Your task to perform on an android device: What's on my calendar tomorrow? Image 0: 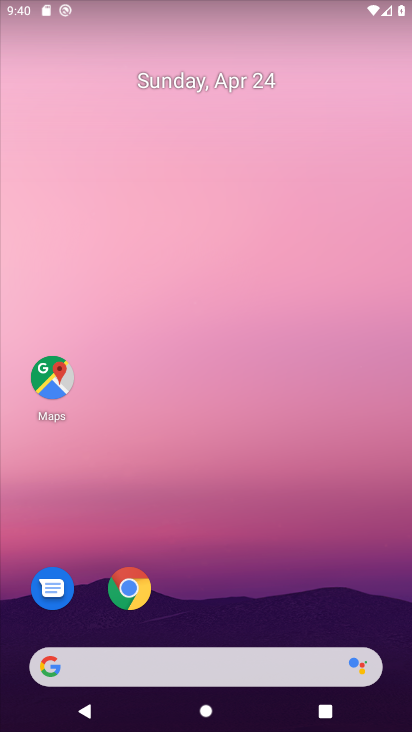
Step 0: drag from (241, 476) to (226, 72)
Your task to perform on an android device: What's on my calendar tomorrow? Image 1: 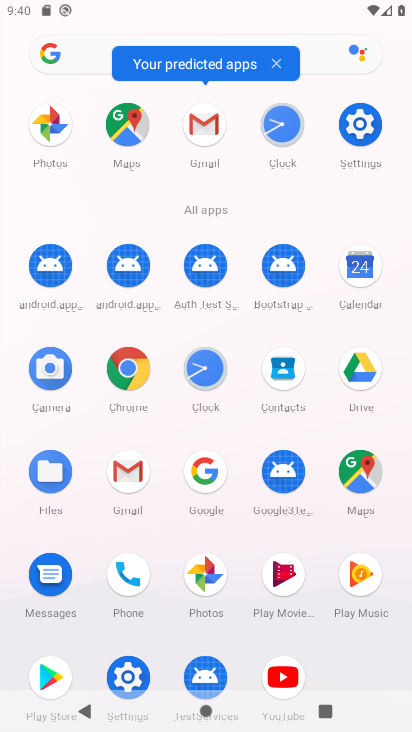
Step 1: click (362, 261)
Your task to perform on an android device: What's on my calendar tomorrow? Image 2: 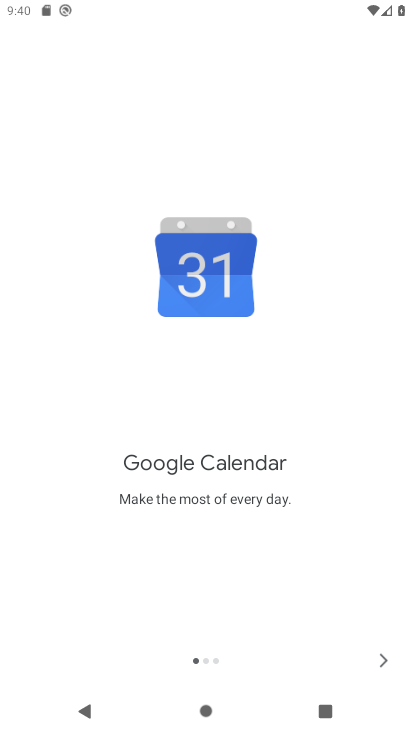
Step 2: click (384, 660)
Your task to perform on an android device: What's on my calendar tomorrow? Image 3: 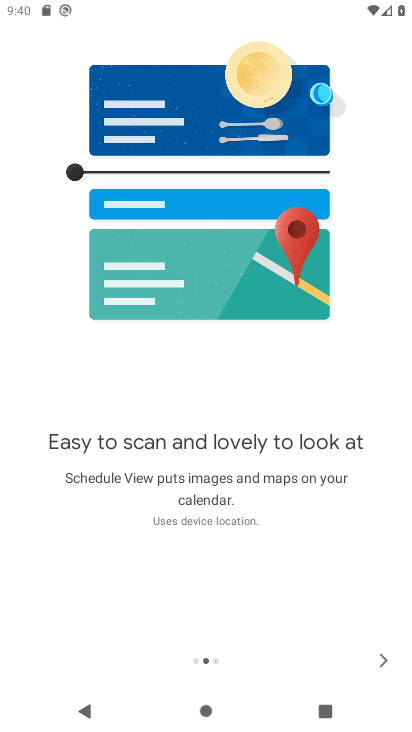
Step 3: click (384, 660)
Your task to perform on an android device: What's on my calendar tomorrow? Image 4: 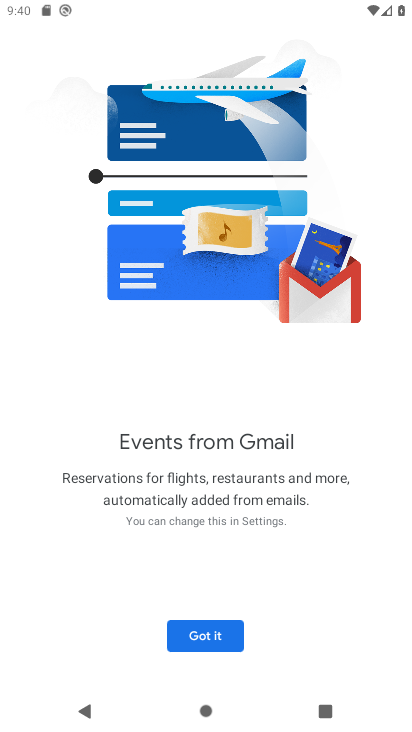
Step 4: click (200, 638)
Your task to perform on an android device: What's on my calendar tomorrow? Image 5: 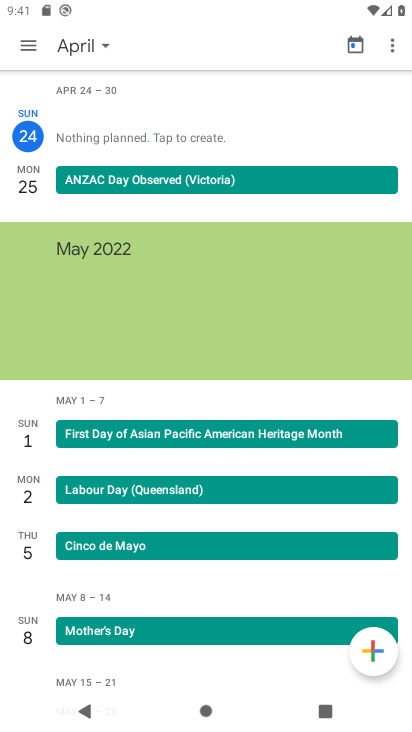
Step 5: click (29, 52)
Your task to perform on an android device: What's on my calendar tomorrow? Image 6: 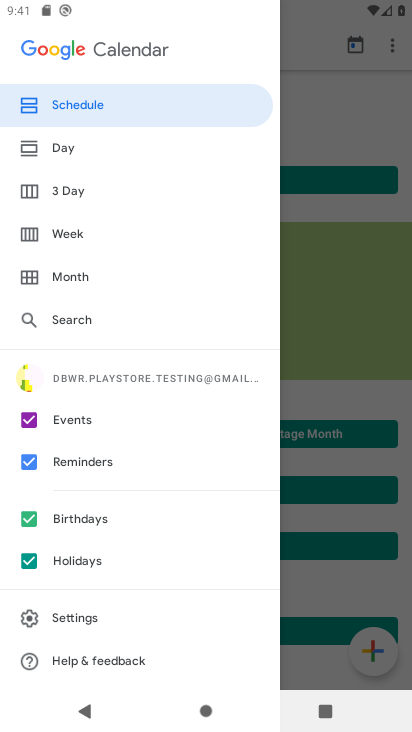
Step 6: click (80, 144)
Your task to perform on an android device: What's on my calendar tomorrow? Image 7: 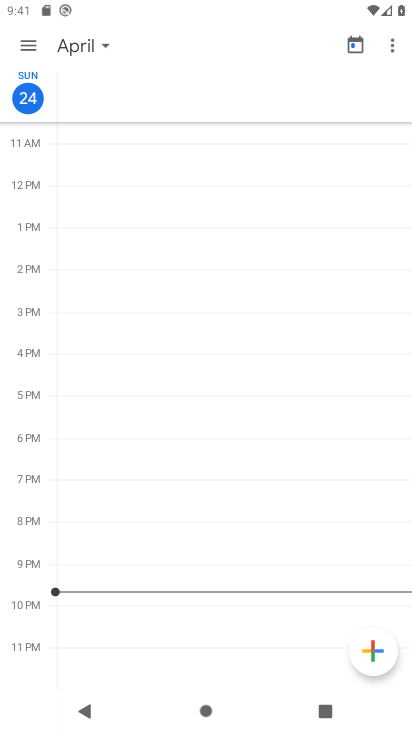
Step 7: click (91, 55)
Your task to perform on an android device: What's on my calendar tomorrow? Image 8: 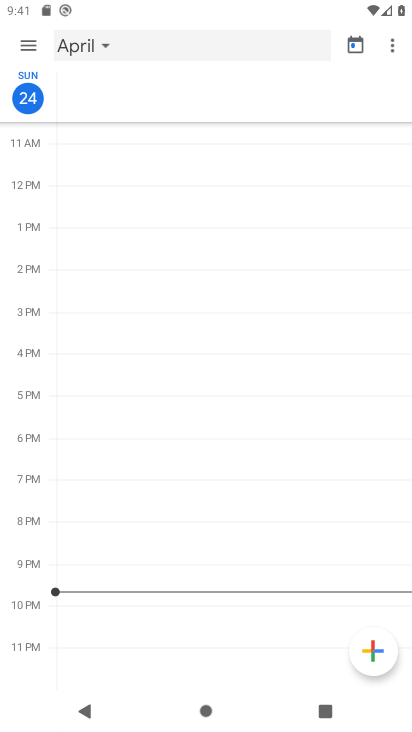
Step 8: click (97, 42)
Your task to perform on an android device: What's on my calendar tomorrow? Image 9: 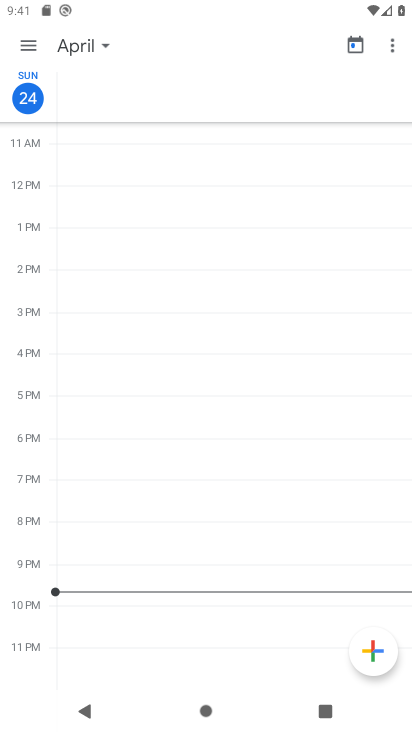
Step 9: click (78, 48)
Your task to perform on an android device: What's on my calendar tomorrow? Image 10: 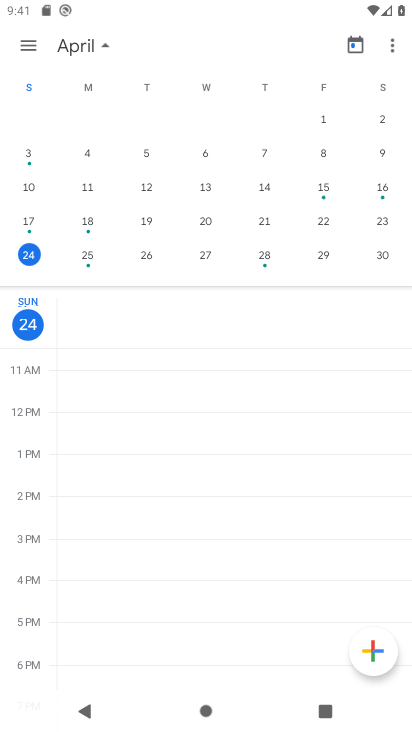
Step 10: click (145, 259)
Your task to perform on an android device: What's on my calendar tomorrow? Image 11: 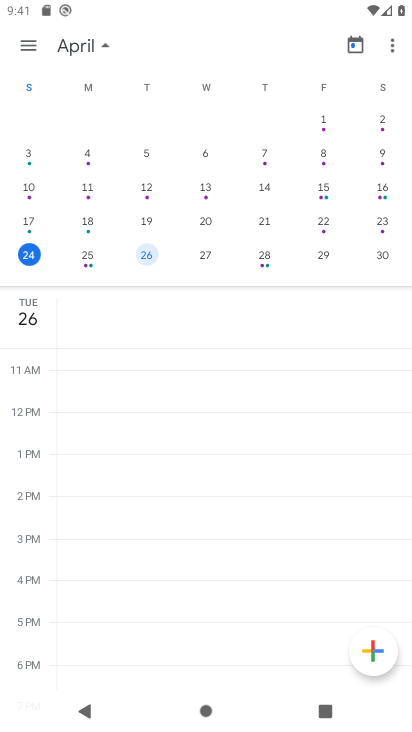
Step 11: click (145, 259)
Your task to perform on an android device: What's on my calendar tomorrow? Image 12: 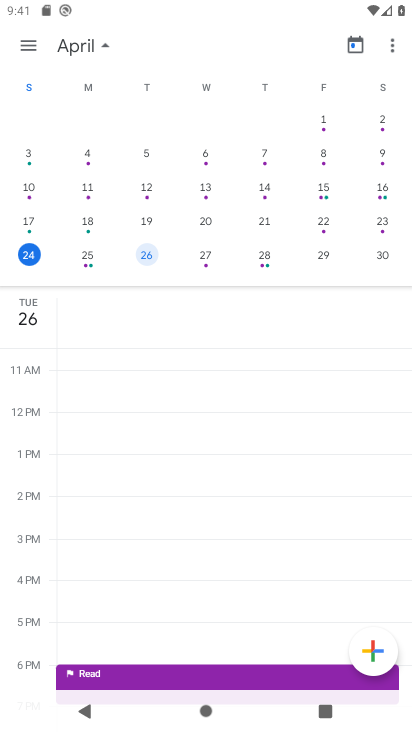
Step 12: click (99, 37)
Your task to perform on an android device: What's on my calendar tomorrow? Image 13: 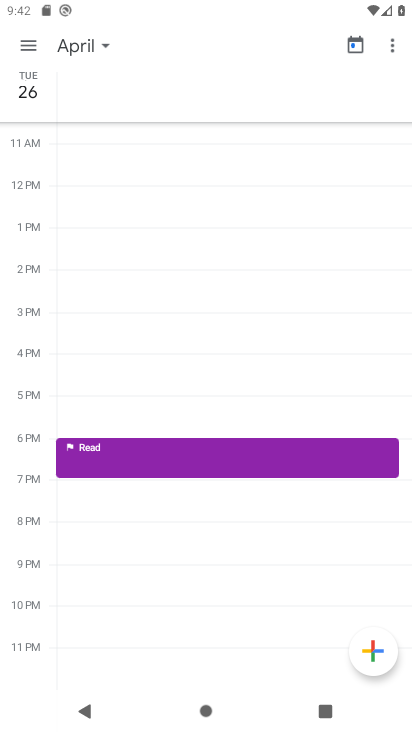
Step 13: task complete